Your task to perform on an android device: check data usage Image 0: 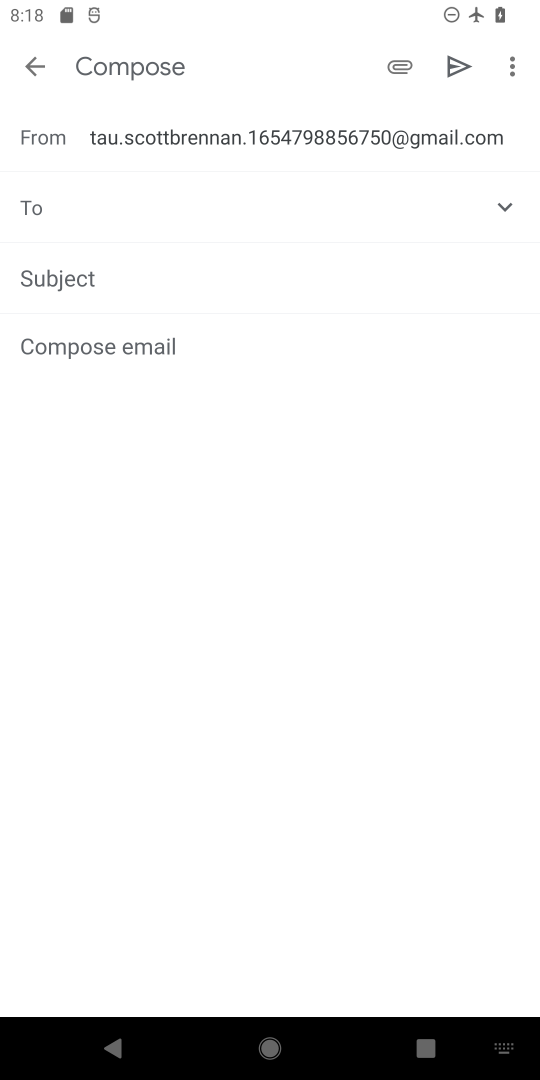
Step 0: press home button
Your task to perform on an android device: check data usage Image 1: 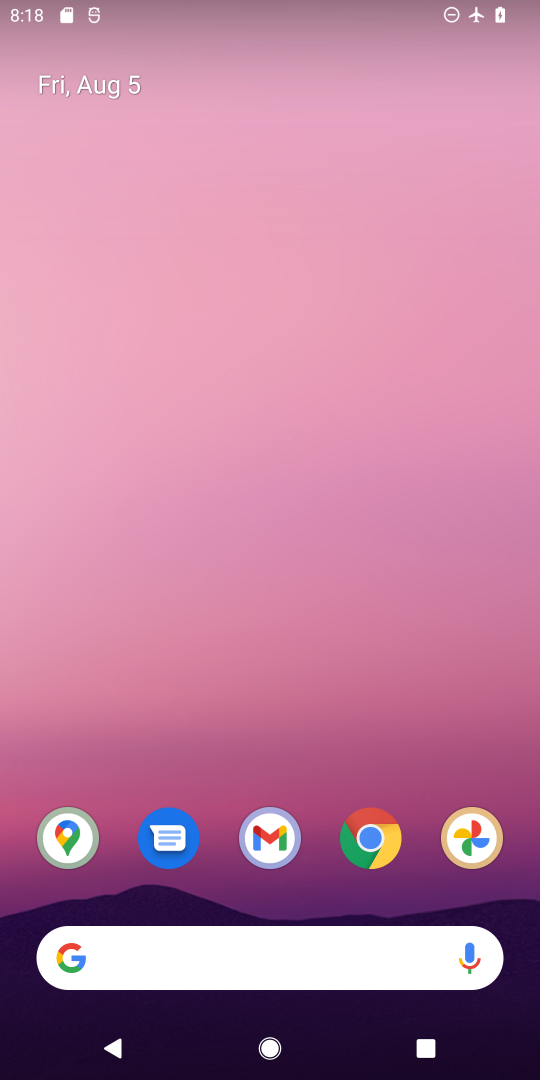
Step 1: drag from (305, 942) to (238, 234)
Your task to perform on an android device: check data usage Image 2: 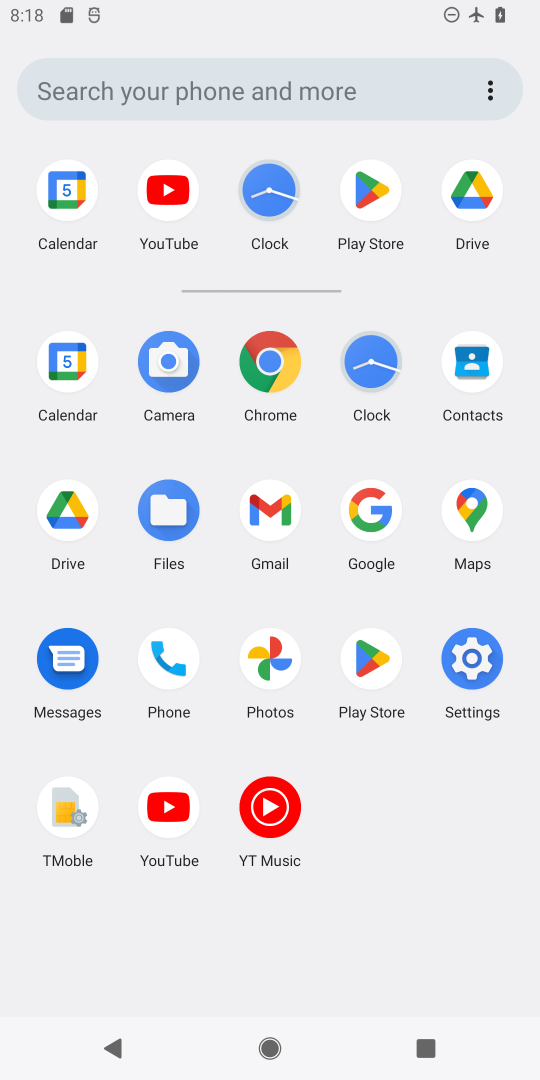
Step 2: click (465, 663)
Your task to perform on an android device: check data usage Image 3: 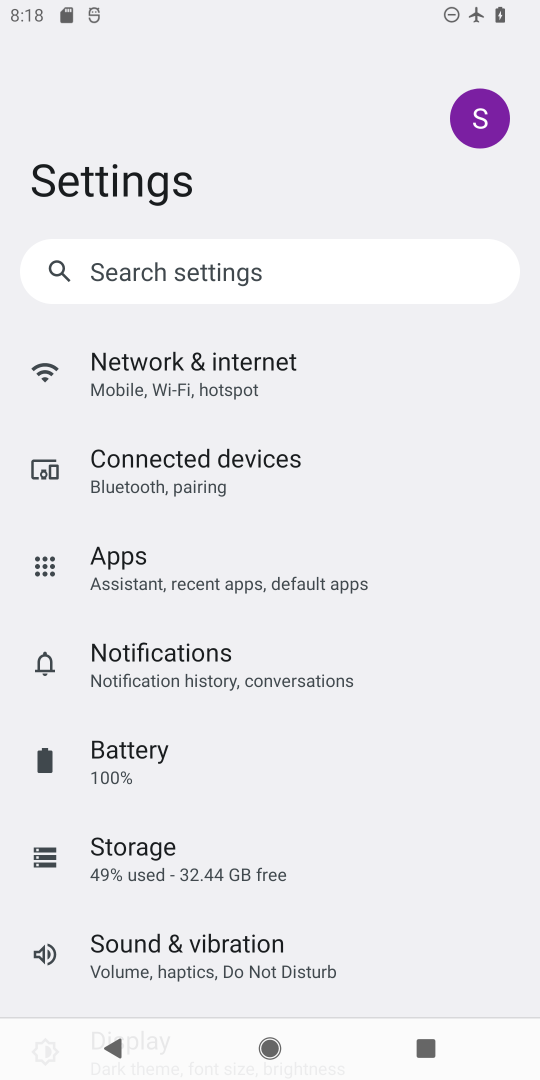
Step 3: click (203, 388)
Your task to perform on an android device: check data usage Image 4: 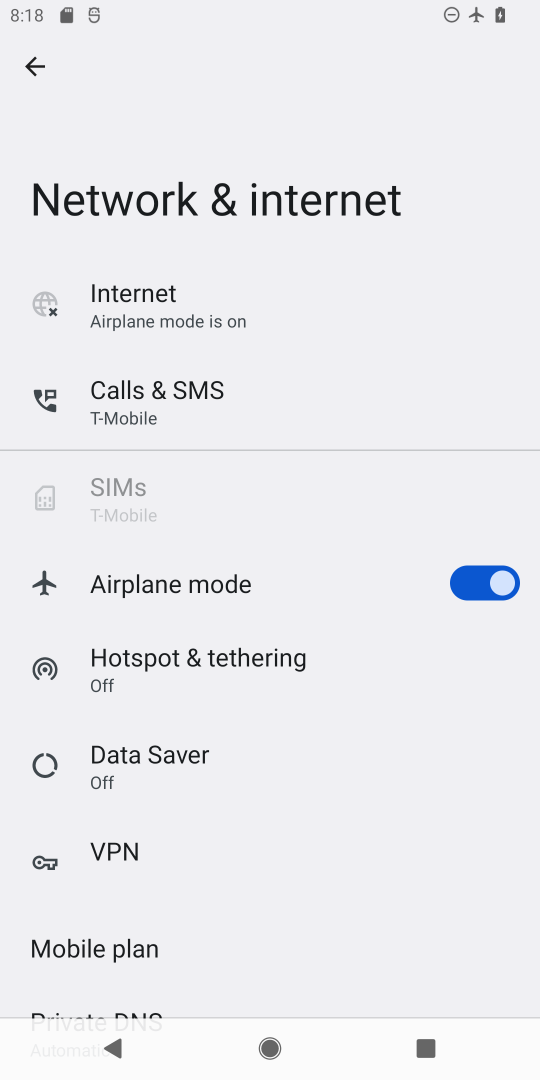
Step 4: click (120, 299)
Your task to perform on an android device: check data usage Image 5: 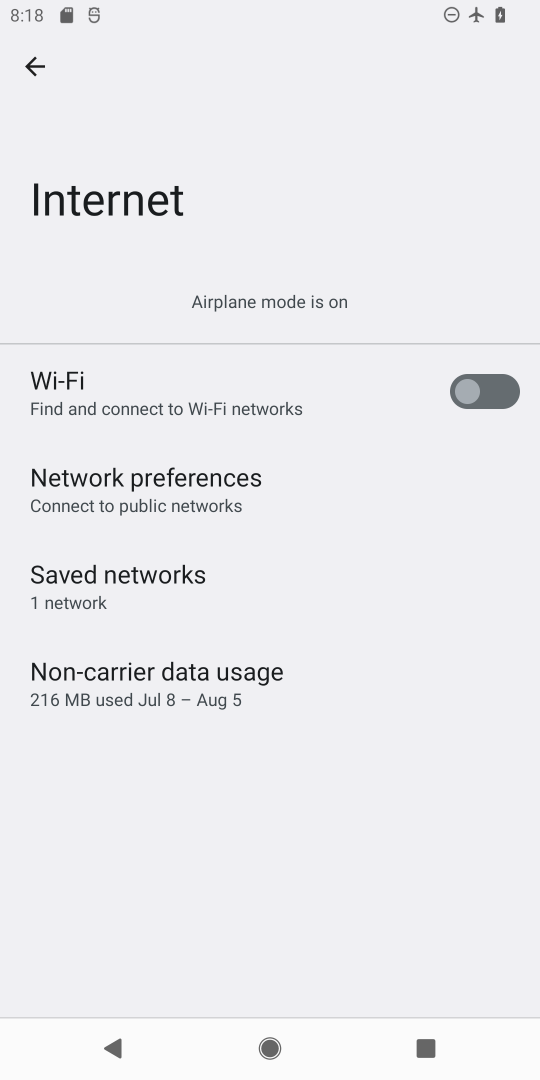
Step 5: click (158, 687)
Your task to perform on an android device: check data usage Image 6: 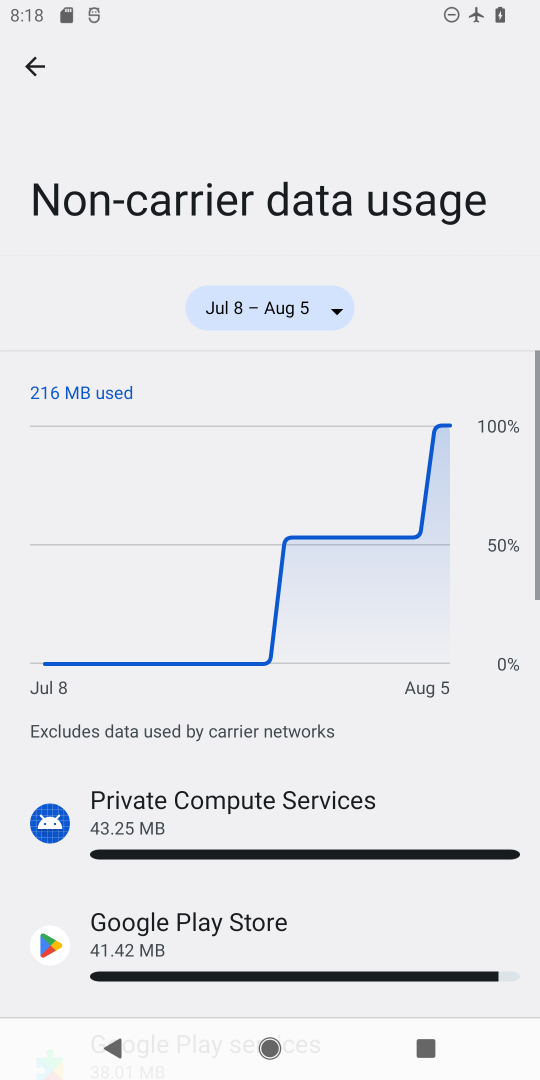
Step 6: task complete